Your task to perform on an android device: check data usage Image 0: 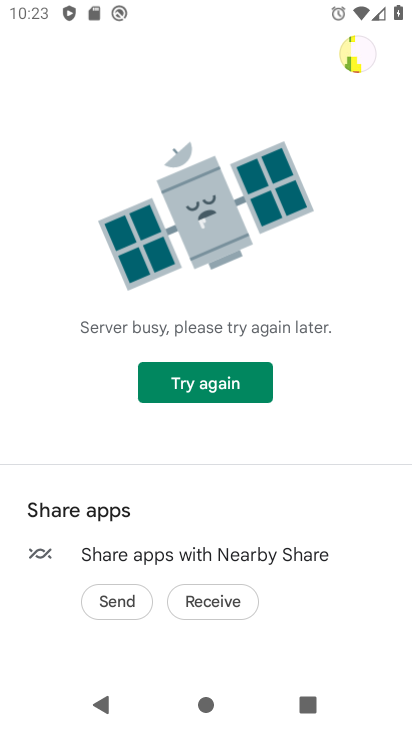
Step 0: press home button
Your task to perform on an android device: check data usage Image 1: 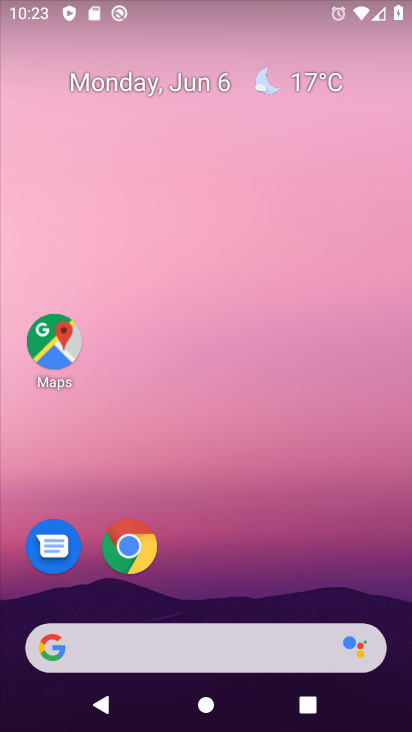
Step 1: drag from (219, 599) to (299, 0)
Your task to perform on an android device: check data usage Image 2: 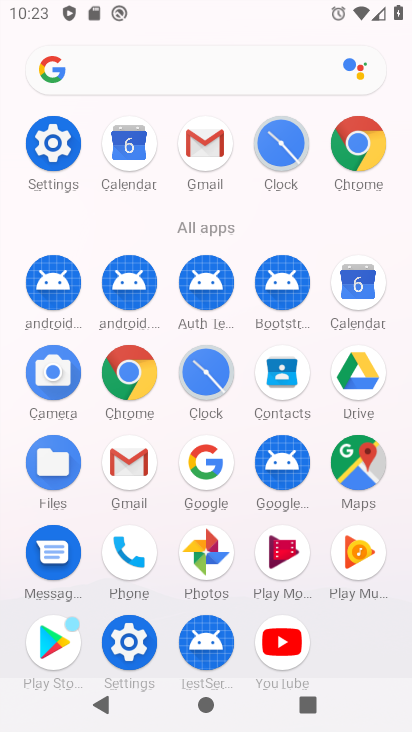
Step 2: click (134, 646)
Your task to perform on an android device: check data usage Image 3: 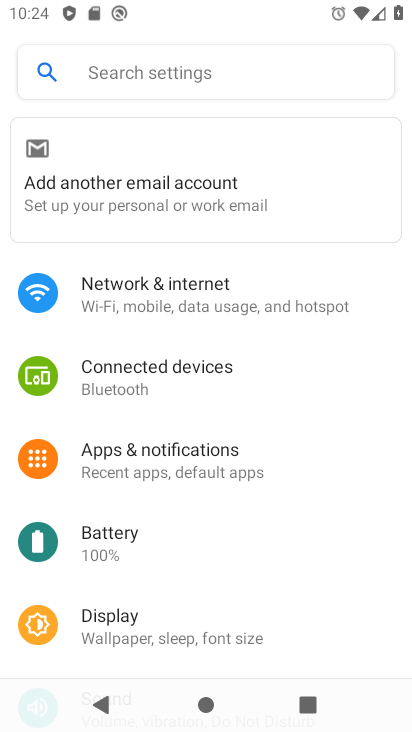
Step 3: click (201, 304)
Your task to perform on an android device: check data usage Image 4: 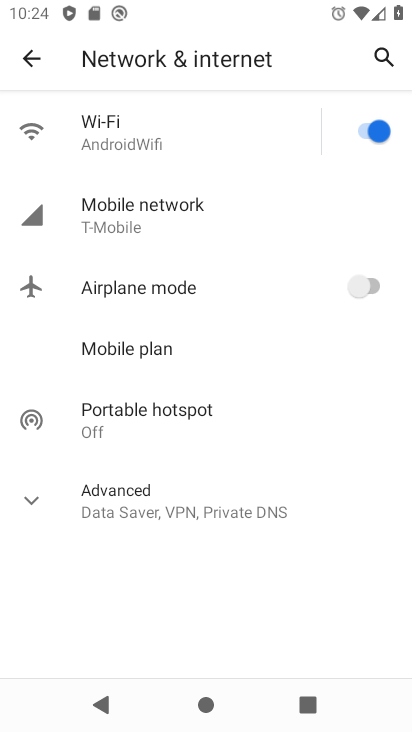
Step 4: click (180, 229)
Your task to perform on an android device: check data usage Image 5: 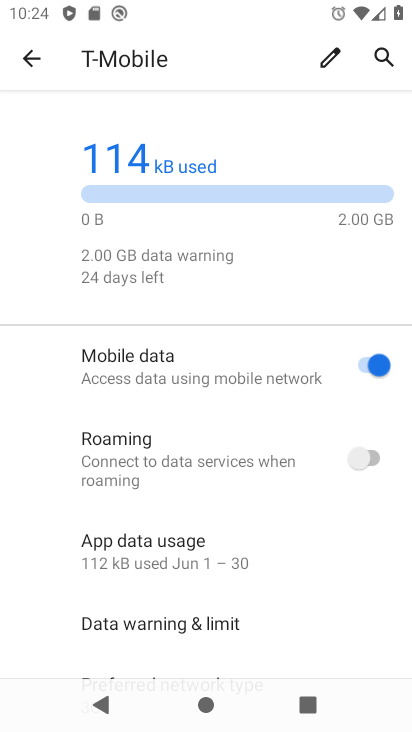
Step 5: click (175, 556)
Your task to perform on an android device: check data usage Image 6: 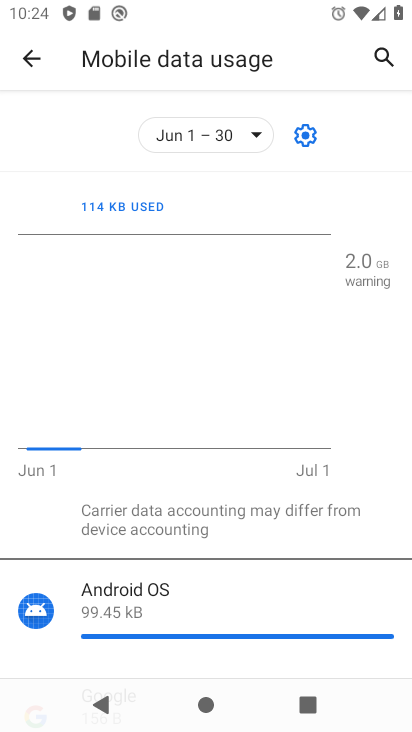
Step 6: task complete